Your task to perform on an android device: Show me popular videos on Youtube Image 0: 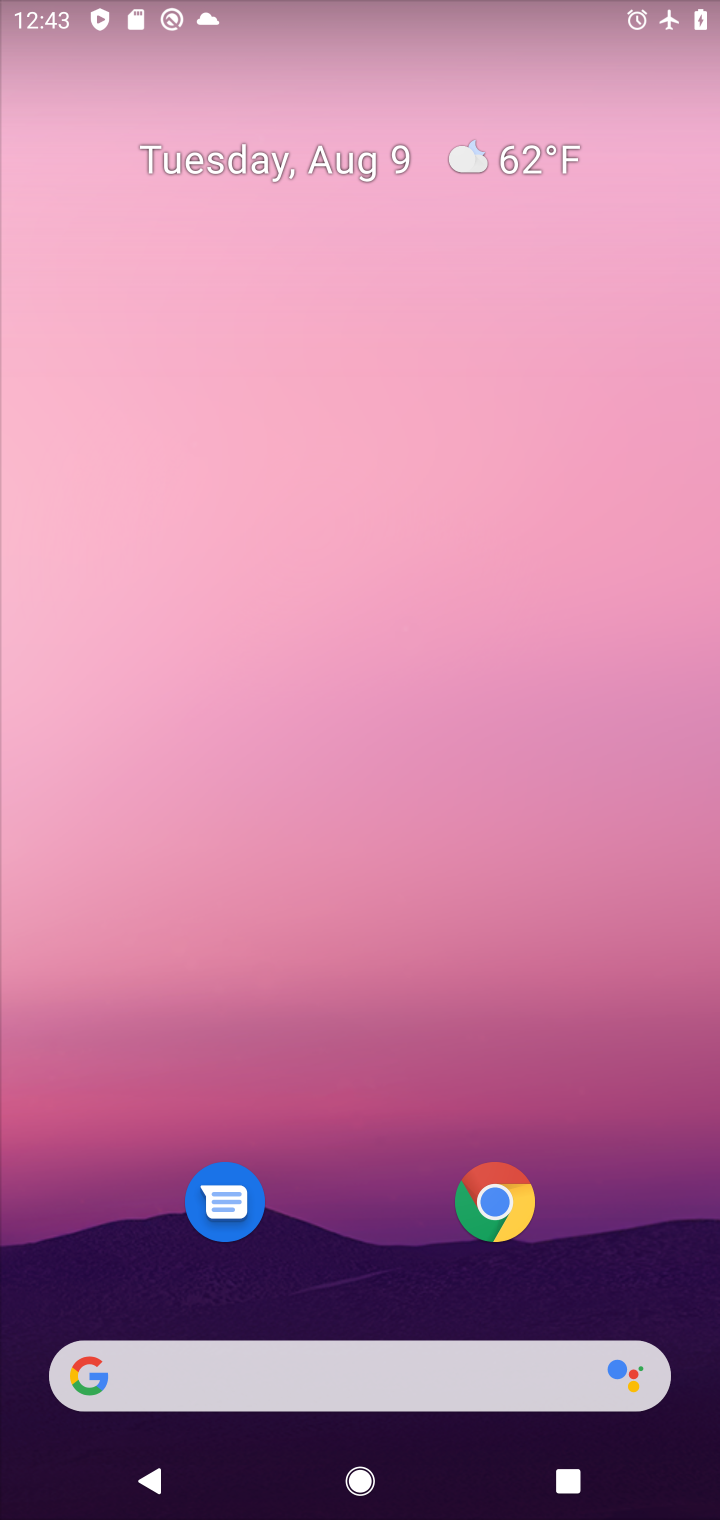
Step 0: click (305, 56)
Your task to perform on an android device: Show me popular videos on Youtube Image 1: 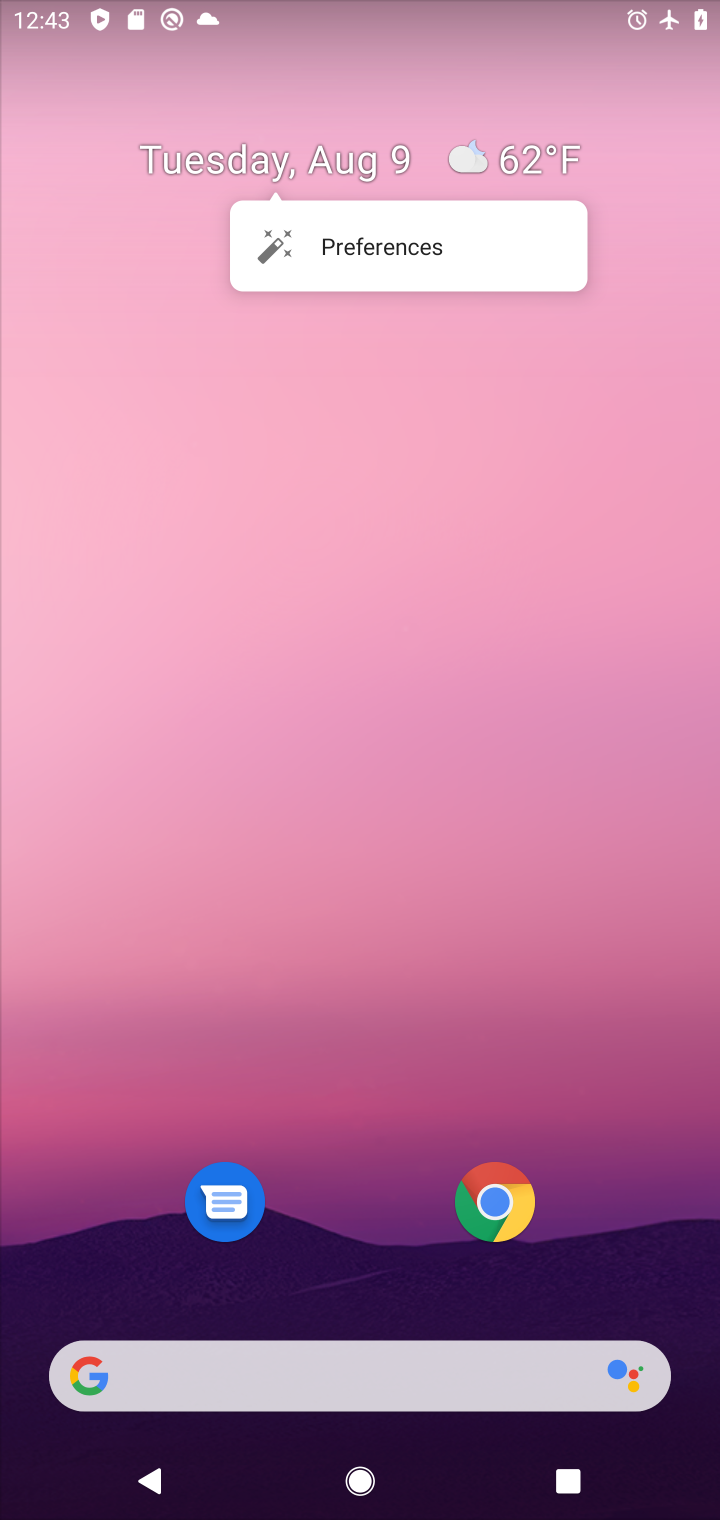
Step 1: drag from (320, 286) to (257, 319)
Your task to perform on an android device: Show me popular videos on Youtube Image 2: 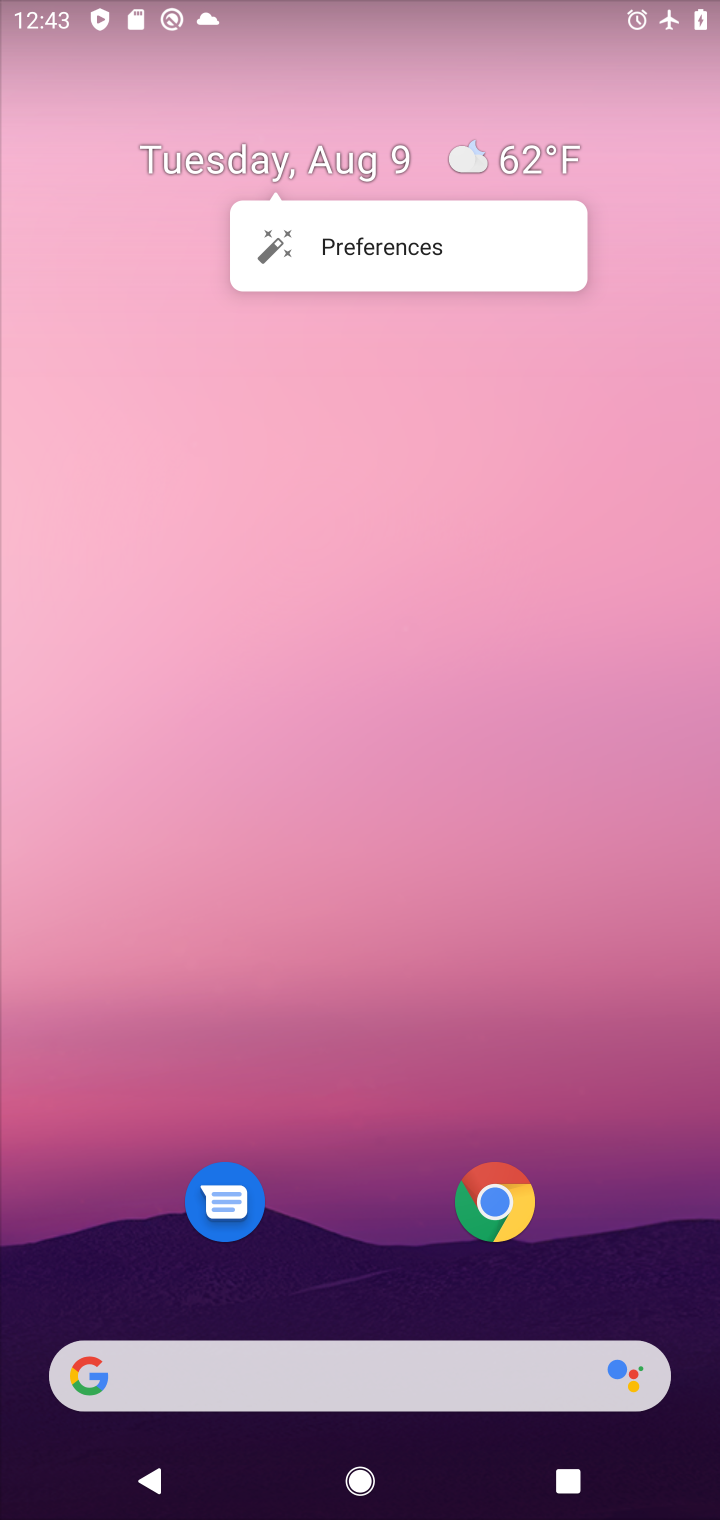
Step 2: click (434, 42)
Your task to perform on an android device: Show me popular videos on Youtube Image 3: 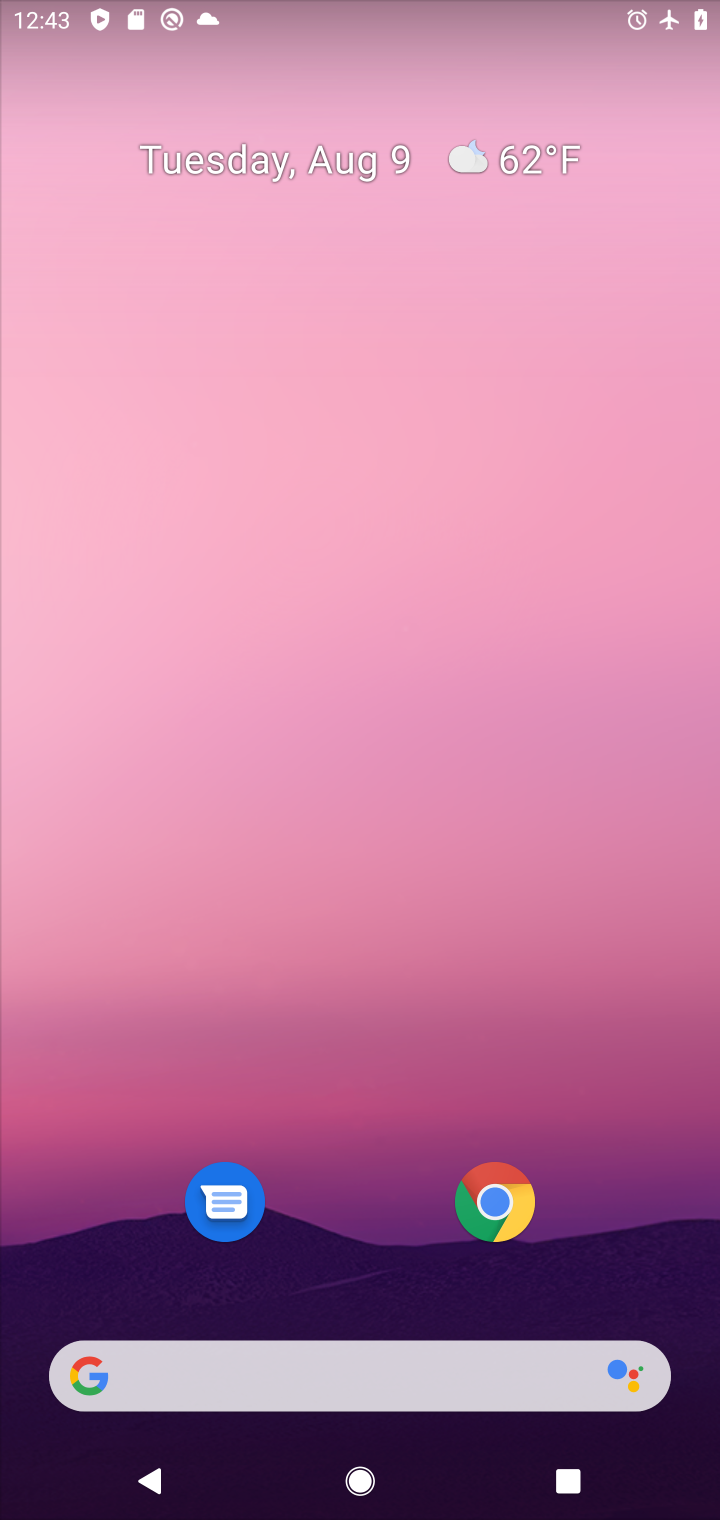
Step 3: drag from (339, 1273) to (291, 174)
Your task to perform on an android device: Show me popular videos on Youtube Image 4: 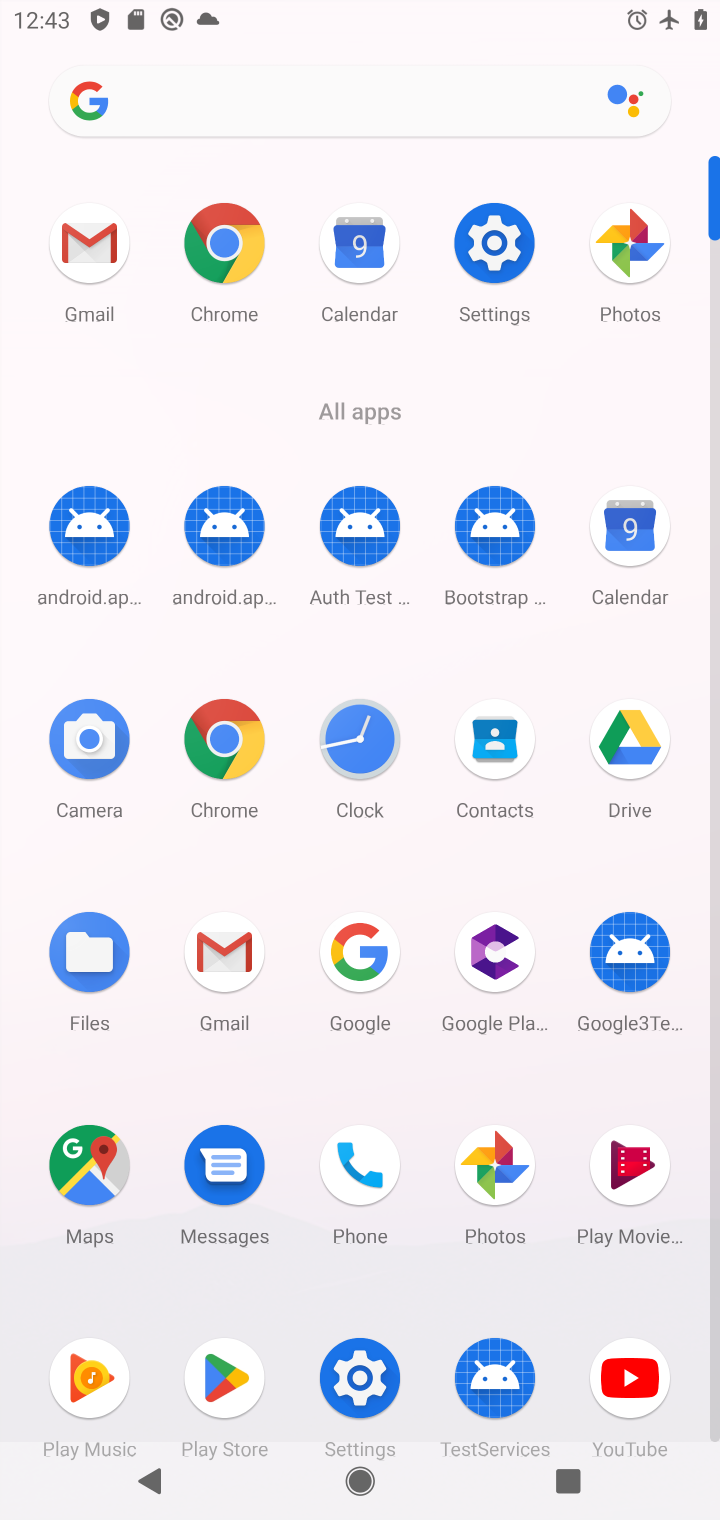
Step 4: click (633, 1395)
Your task to perform on an android device: Show me popular videos on Youtube Image 5: 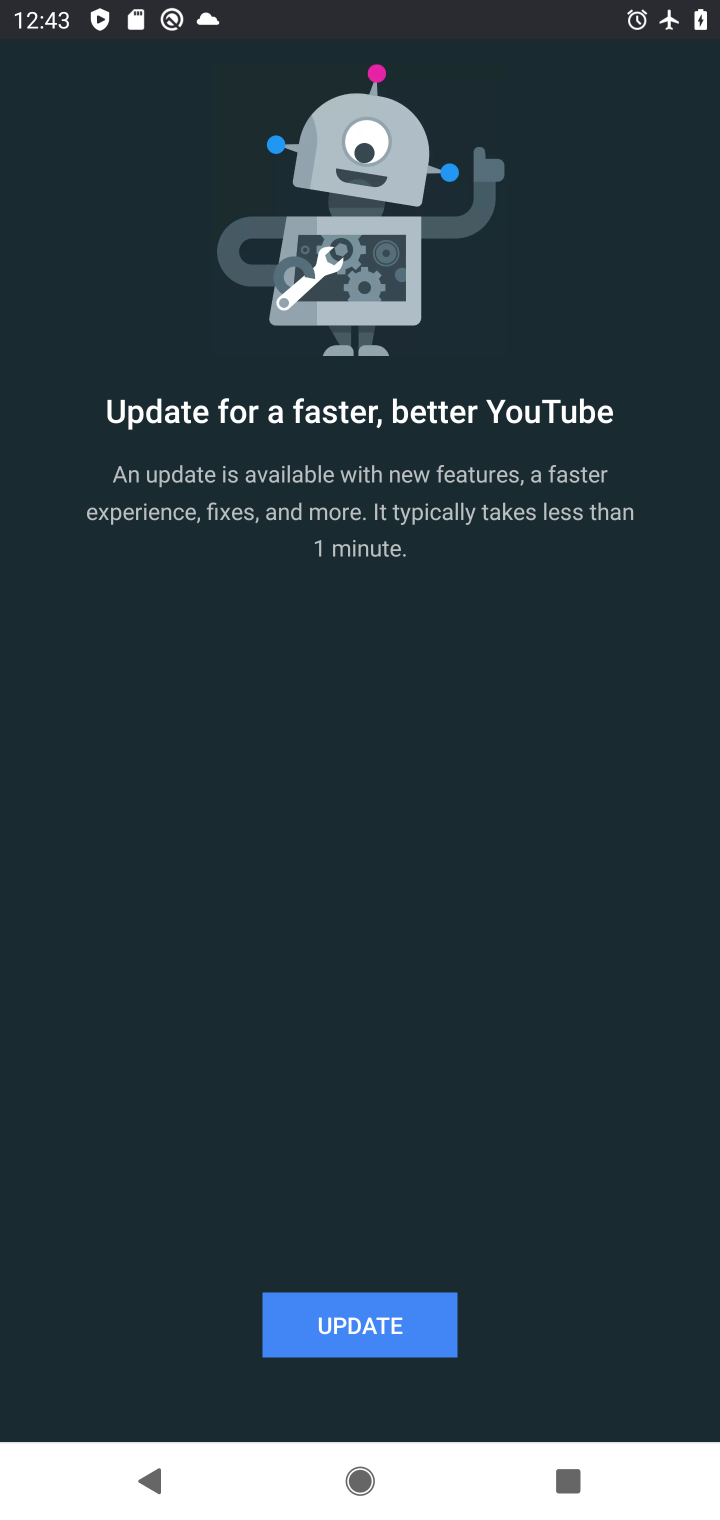
Step 5: click (413, 1321)
Your task to perform on an android device: Show me popular videos on Youtube Image 6: 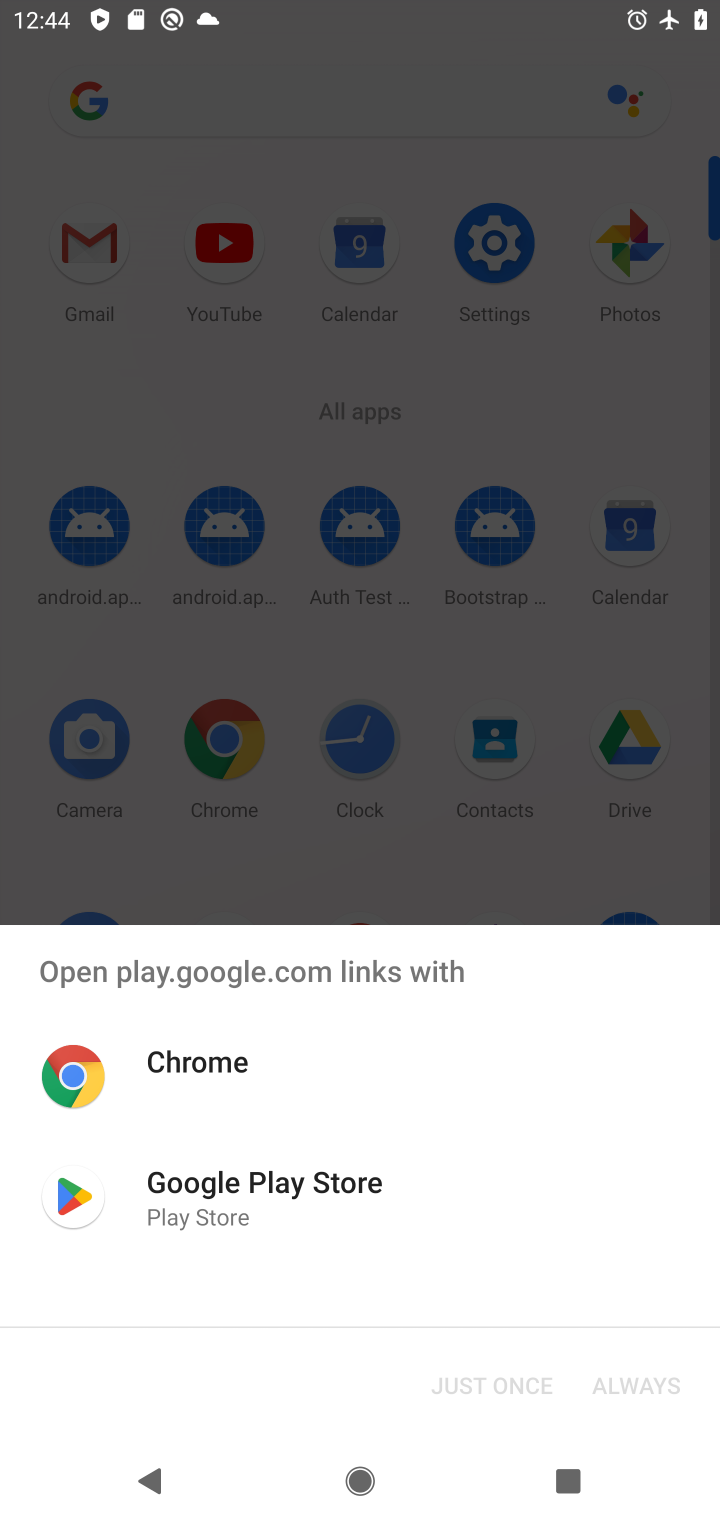
Step 6: click (370, 1218)
Your task to perform on an android device: Show me popular videos on Youtube Image 7: 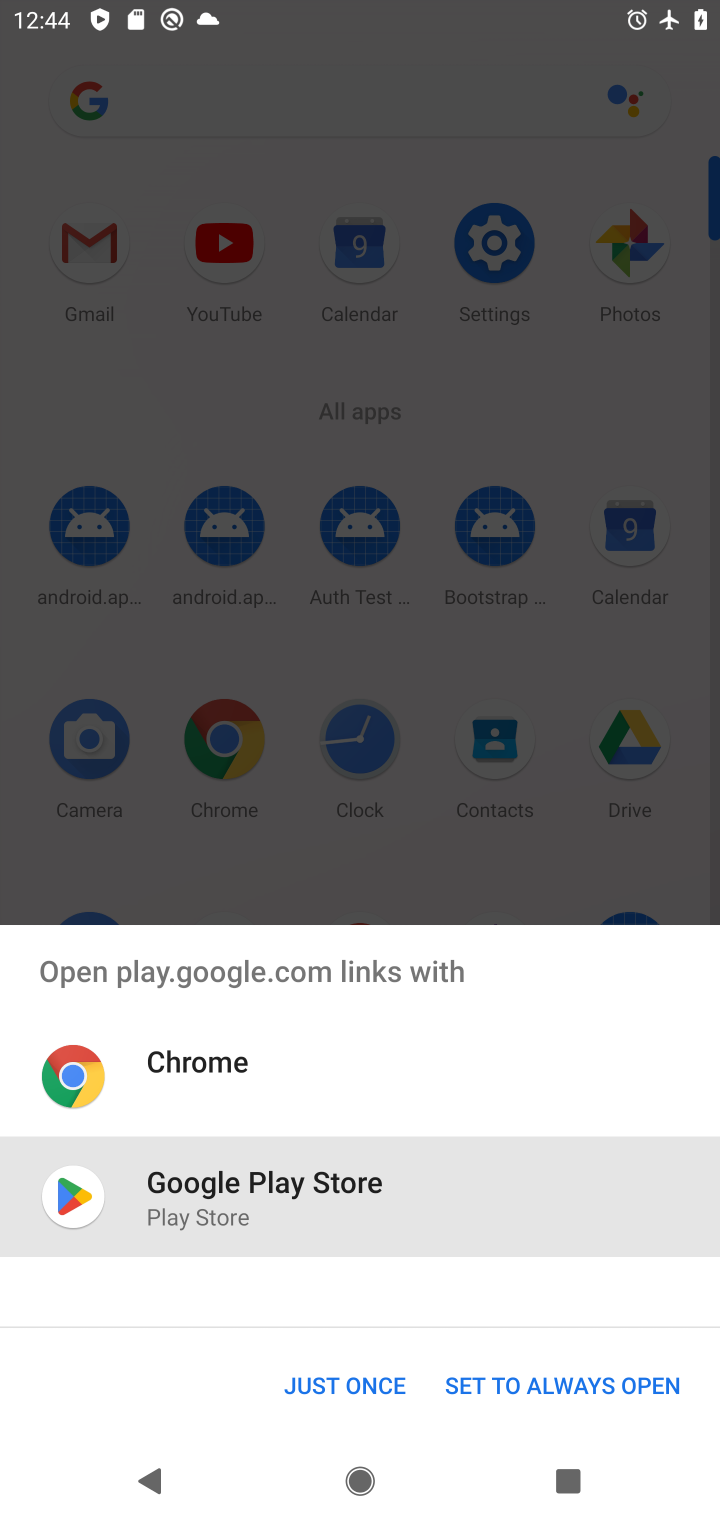
Step 7: click (538, 1395)
Your task to perform on an android device: Show me popular videos on Youtube Image 8: 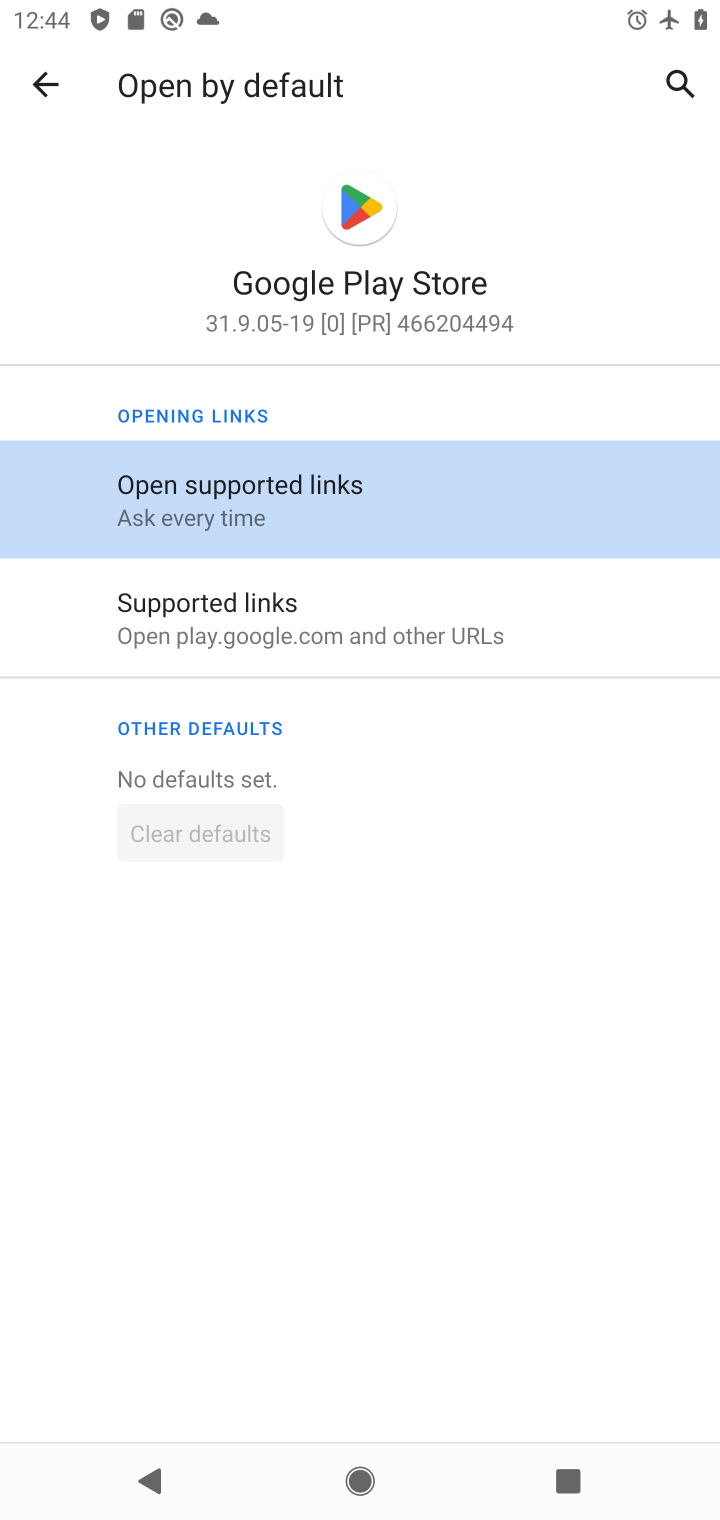
Step 8: click (218, 511)
Your task to perform on an android device: Show me popular videos on Youtube Image 9: 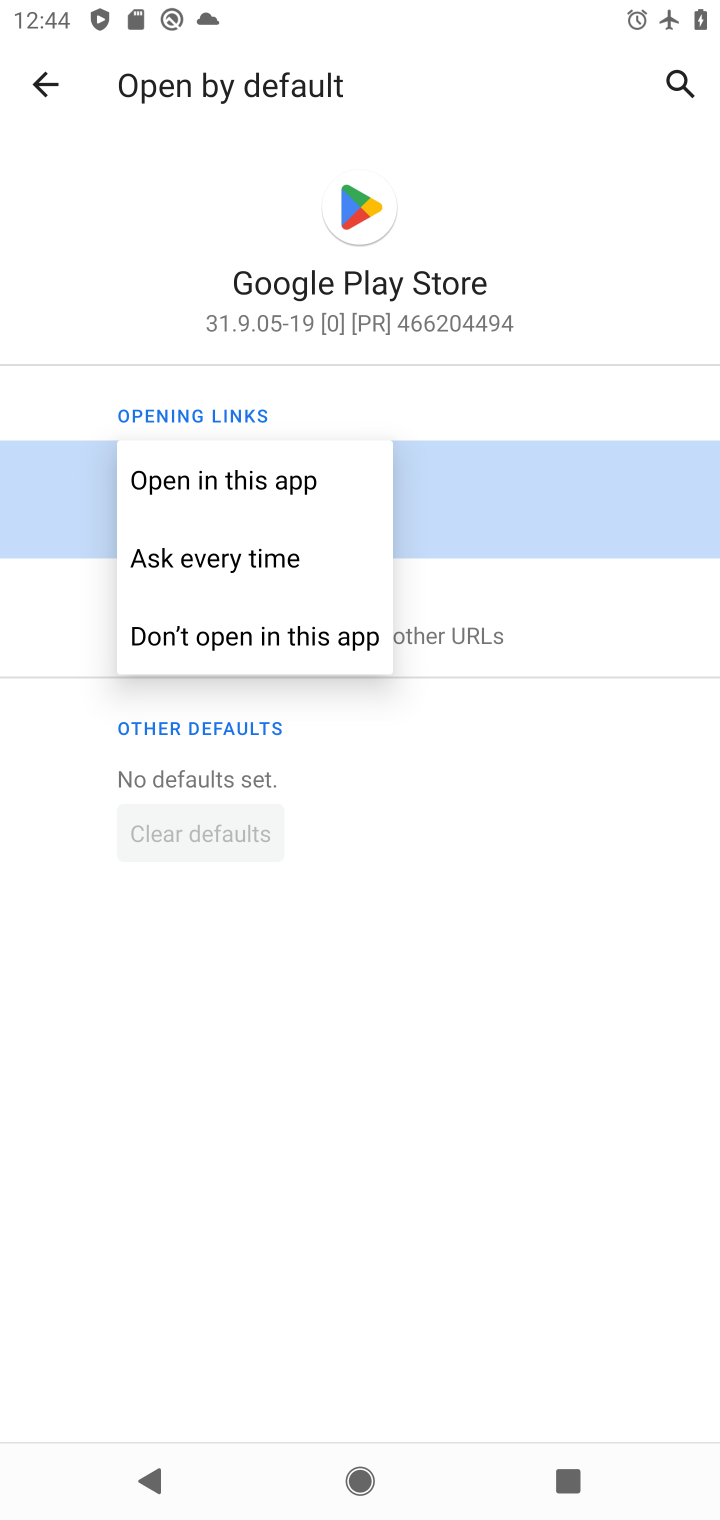
Step 9: click (195, 477)
Your task to perform on an android device: Show me popular videos on Youtube Image 10: 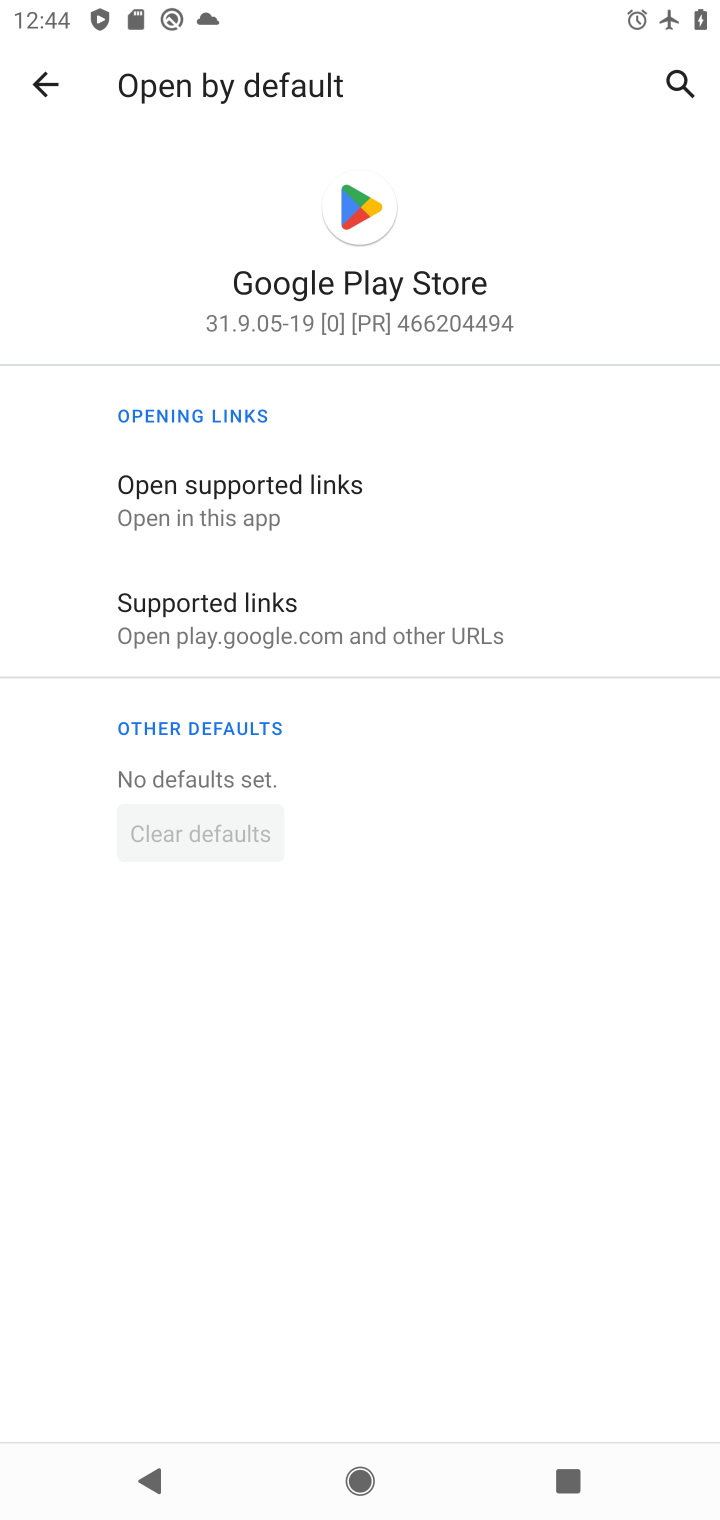
Step 10: click (41, 75)
Your task to perform on an android device: Show me popular videos on Youtube Image 11: 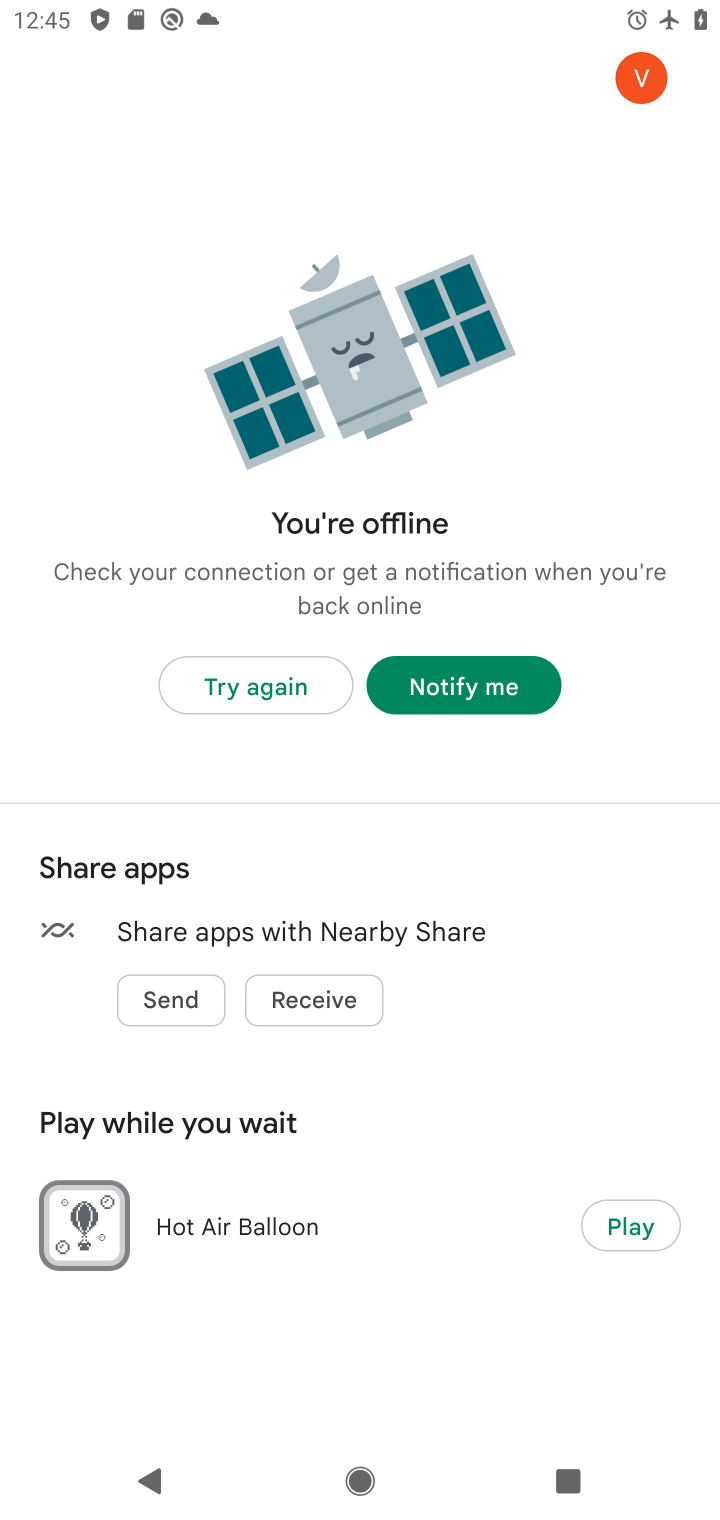
Step 11: task complete